Your task to perform on an android device: Open settings on Google Maps Image 0: 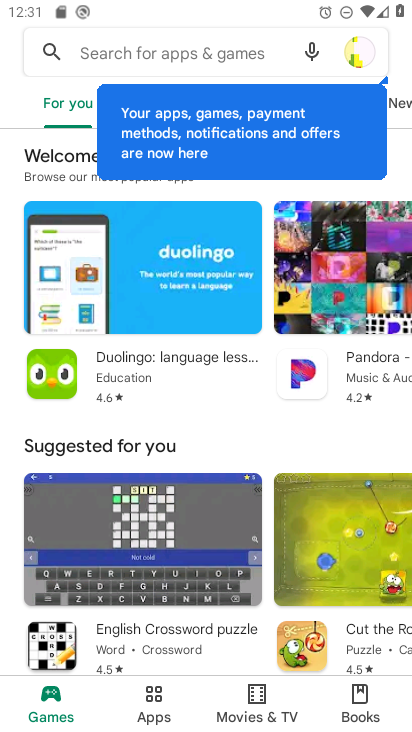
Step 0: press home button
Your task to perform on an android device: Open settings on Google Maps Image 1: 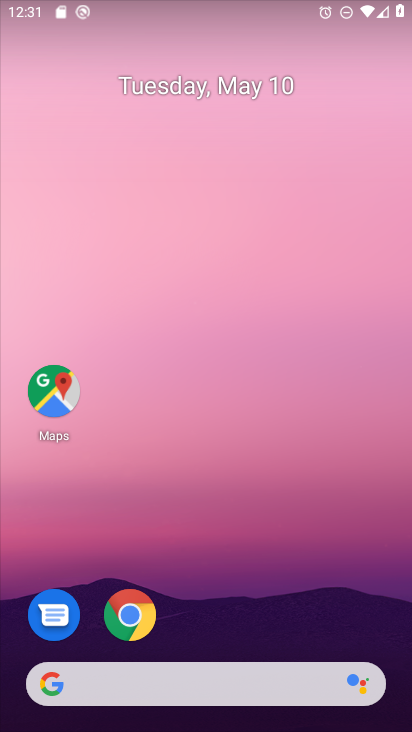
Step 1: drag from (183, 698) to (261, 347)
Your task to perform on an android device: Open settings on Google Maps Image 2: 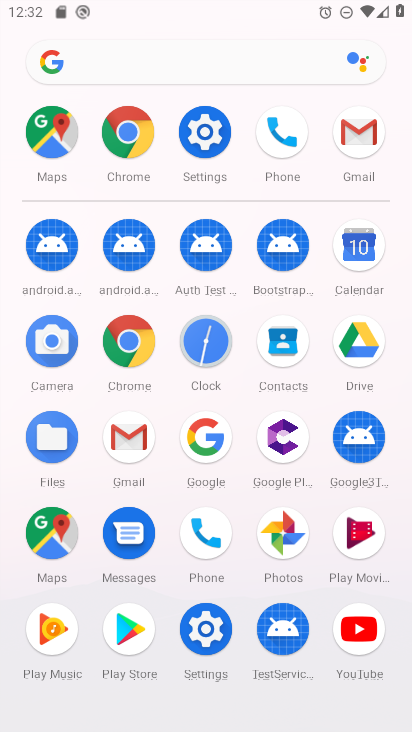
Step 2: click (61, 144)
Your task to perform on an android device: Open settings on Google Maps Image 3: 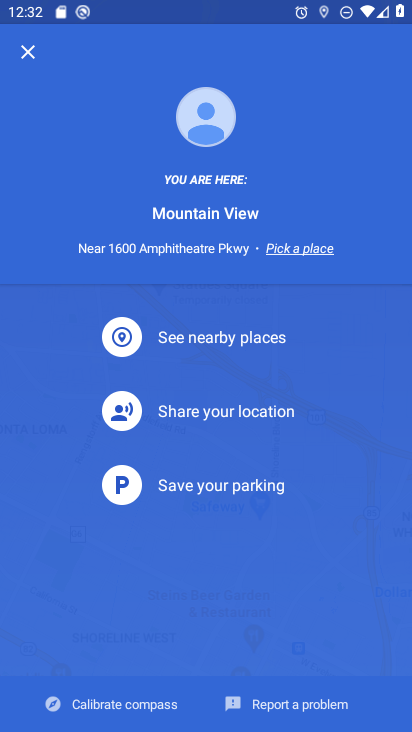
Step 3: click (26, 58)
Your task to perform on an android device: Open settings on Google Maps Image 4: 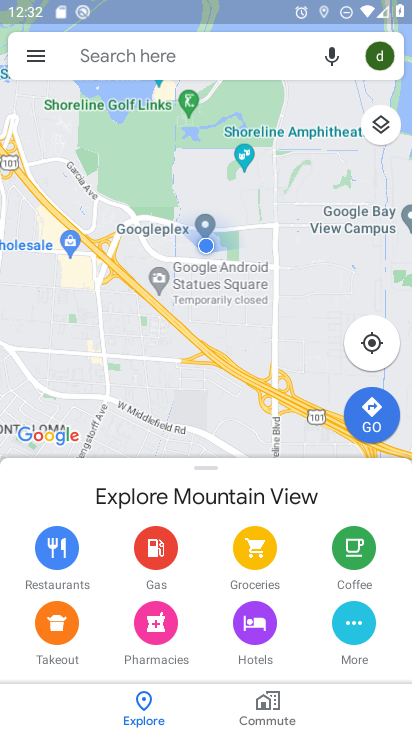
Step 4: click (31, 63)
Your task to perform on an android device: Open settings on Google Maps Image 5: 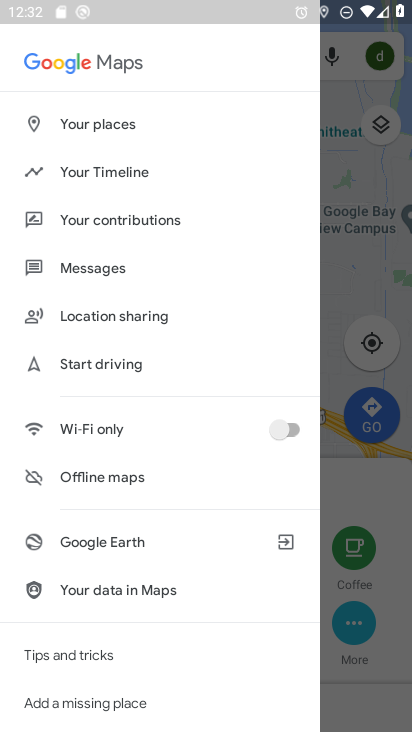
Step 5: drag from (103, 593) to (124, 416)
Your task to perform on an android device: Open settings on Google Maps Image 6: 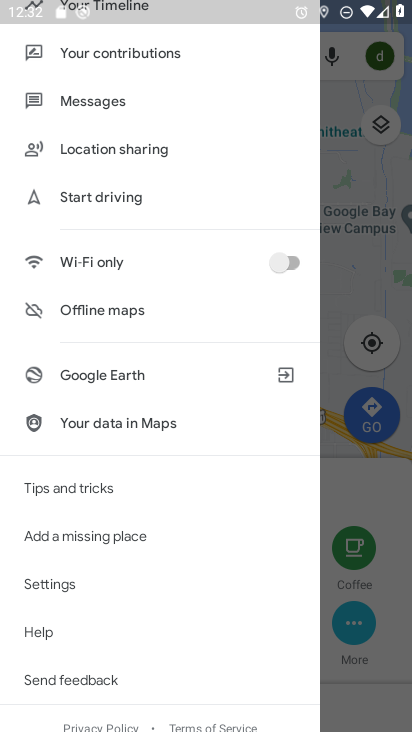
Step 6: click (69, 586)
Your task to perform on an android device: Open settings on Google Maps Image 7: 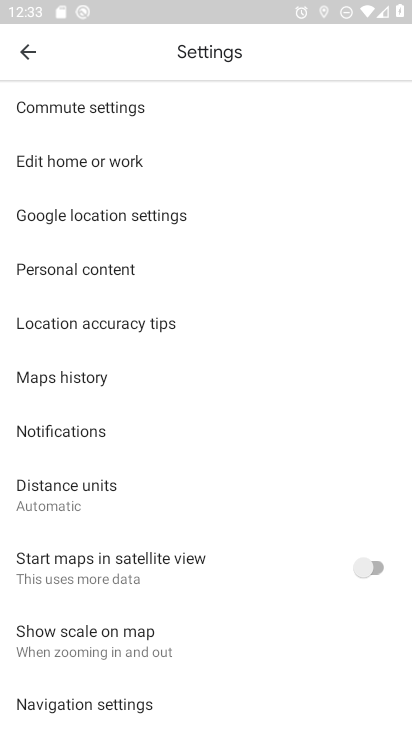
Step 7: task complete